Your task to perform on an android device: What's on my calendar tomorrow? Image 0: 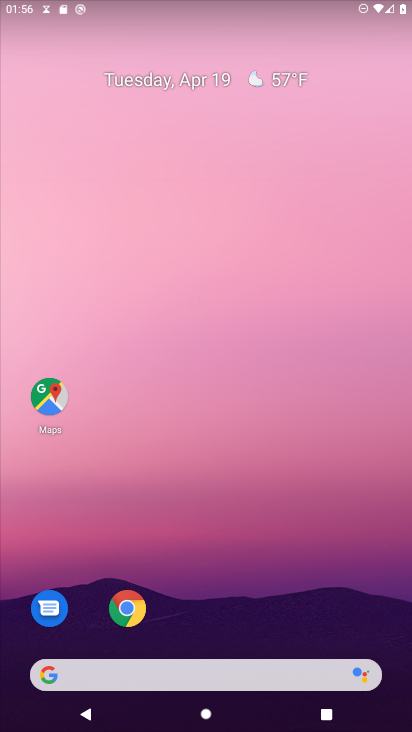
Step 0: drag from (233, 535) to (139, 155)
Your task to perform on an android device: What's on my calendar tomorrow? Image 1: 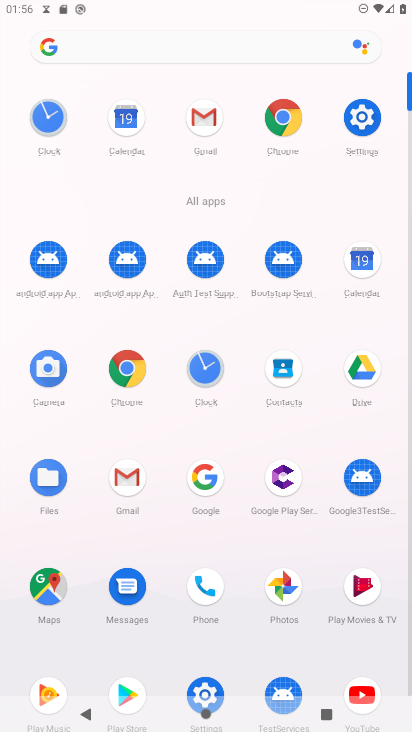
Step 1: click (124, 116)
Your task to perform on an android device: What's on my calendar tomorrow? Image 2: 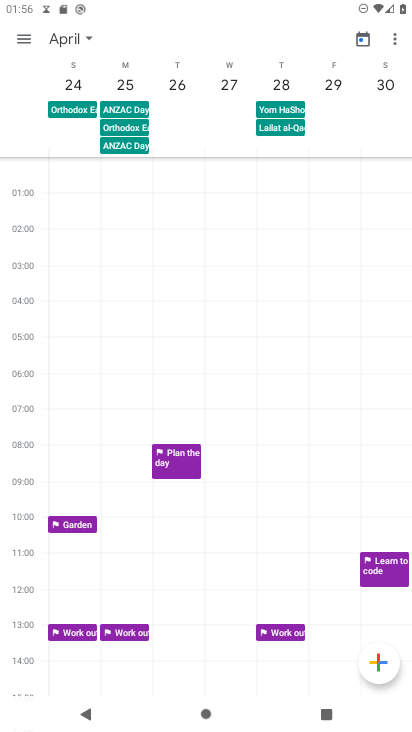
Step 2: drag from (74, 93) to (397, 94)
Your task to perform on an android device: What's on my calendar tomorrow? Image 3: 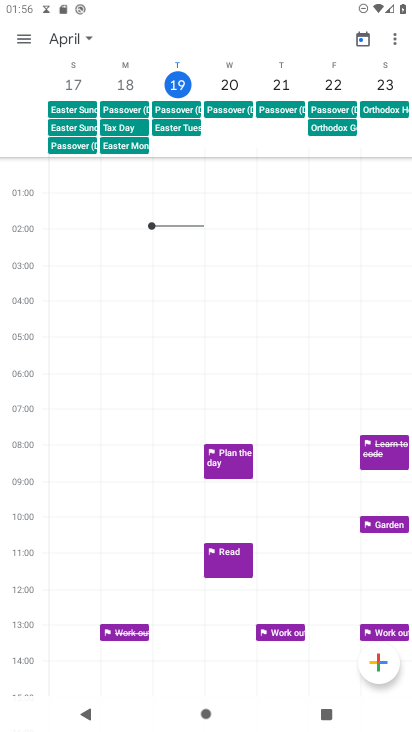
Step 3: click (231, 81)
Your task to perform on an android device: What's on my calendar tomorrow? Image 4: 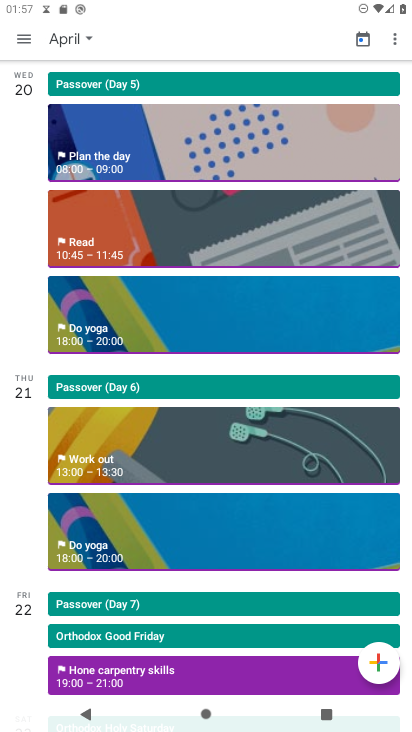
Step 4: task complete